Your task to perform on an android device: View the shopping cart on newegg. Search for "logitech g933" on newegg, select the first entry, and add it to the cart. Image 0: 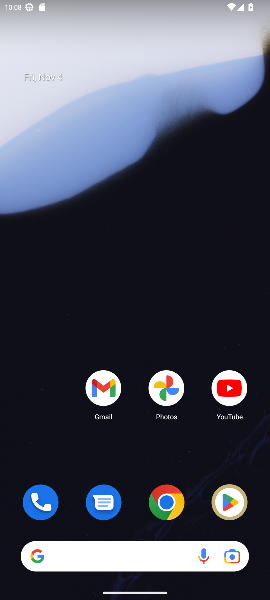
Step 0: click (174, 505)
Your task to perform on an android device: View the shopping cart on newegg. Search for "logitech g933" on newegg, select the first entry, and add it to the cart. Image 1: 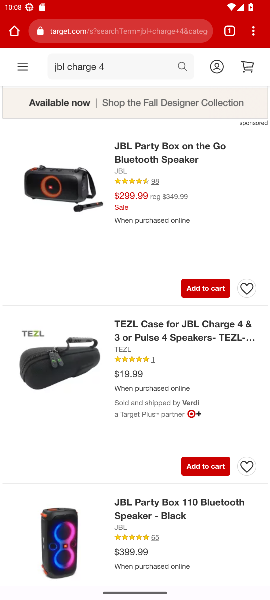
Step 1: click (138, 32)
Your task to perform on an android device: View the shopping cart on newegg. Search for "logitech g933" on newegg, select the first entry, and add it to the cart. Image 2: 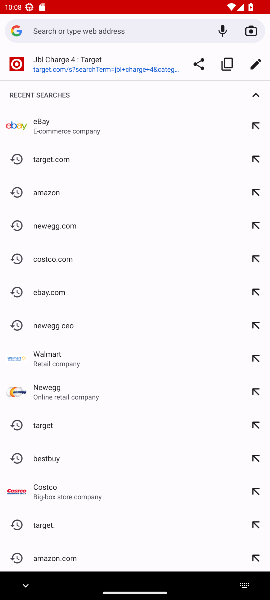
Step 2: type "newegg"
Your task to perform on an android device: View the shopping cart on newegg. Search for "logitech g933" on newegg, select the first entry, and add it to the cart. Image 3: 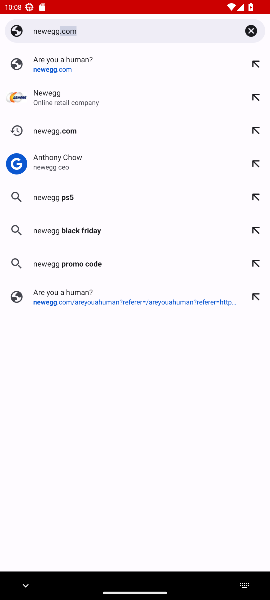
Step 3: click (194, 28)
Your task to perform on an android device: View the shopping cart on newegg. Search for "logitech g933" on newegg, select the first entry, and add it to the cart. Image 4: 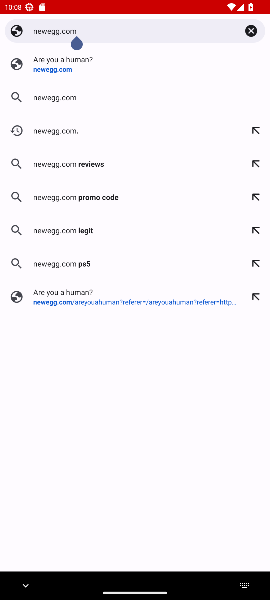
Step 4: click (67, 97)
Your task to perform on an android device: View the shopping cart on newegg. Search for "logitech g933" on newegg, select the first entry, and add it to the cart. Image 5: 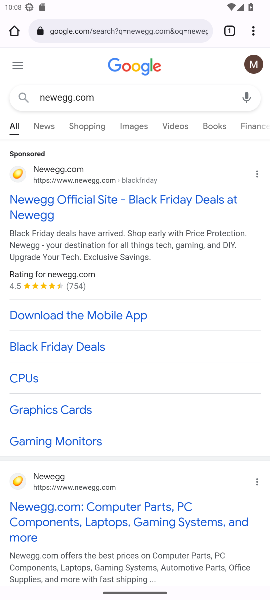
Step 5: click (91, 483)
Your task to perform on an android device: View the shopping cart on newegg. Search for "logitech g933" on newegg, select the first entry, and add it to the cart. Image 6: 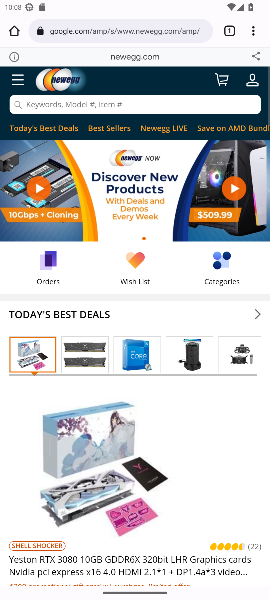
Step 6: click (200, 106)
Your task to perform on an android device: View the shopping cart on newegg. Search for "logitech g933" on newegg, select the first entry, and add it to the cart. Image 7: 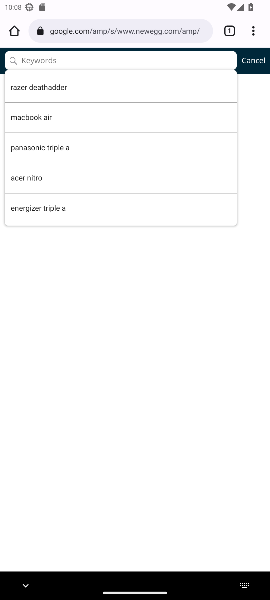
Step 7: type "logitech g933"
Your task to perform on an android device: View the shopping cart on newegg. Search for "logitech g933" on newegg, select the first entry, and add it to the cart. Image 8: 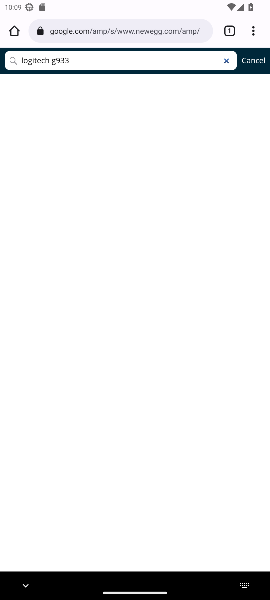
Step 8: click (225, 208)
Your task to perform on an android device: View the shopping cart on newegg. Search for "logitech g933" on newegg, select the first entry, and add it to the cart. Image 9: 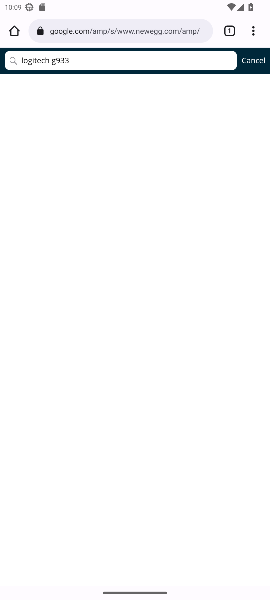
Step 9: task complete